Your task to perform on an android device: toggle show notifications on the lock screen Image 0: 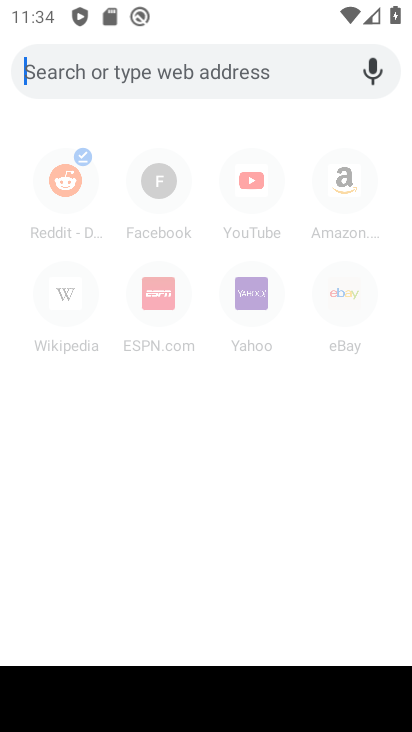
Step 0: press home button
Your task to perform on an android device: toggle show notifications on the lock screen Image 1: 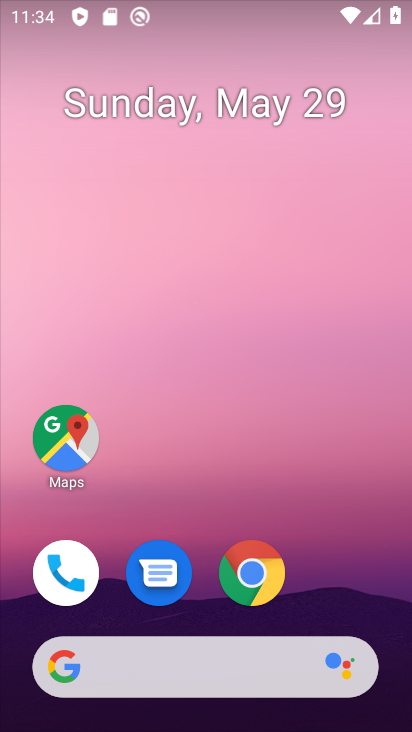
Step 1: drag from (340, 572) to (288, 244)
Your task to perform on an android device: toggle show notifications on the lock screen Image 2: 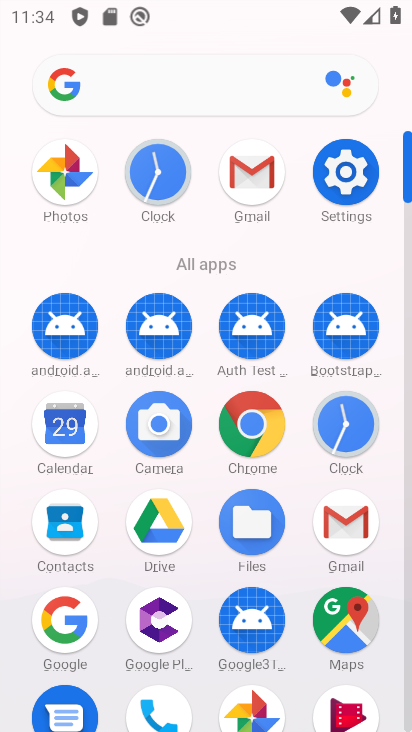
Step 2: click (344, 168)
Your task to perform on an android device: toggle show notifications on the lock screen Image 3: 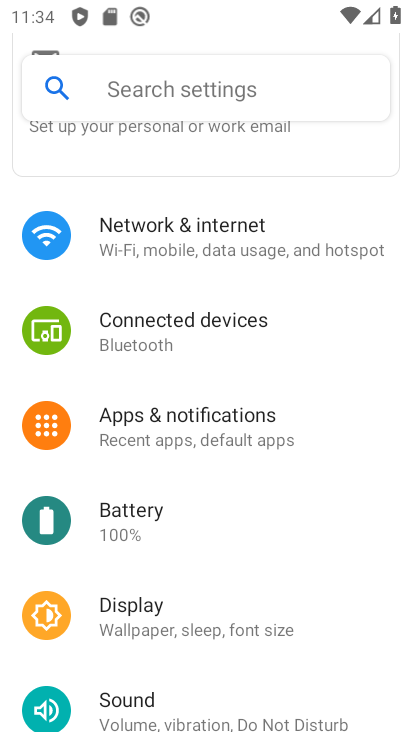
Step 3: click (267, 427)
Your task to perform on an android device: toggle show notifications on the lock screen Image 4: 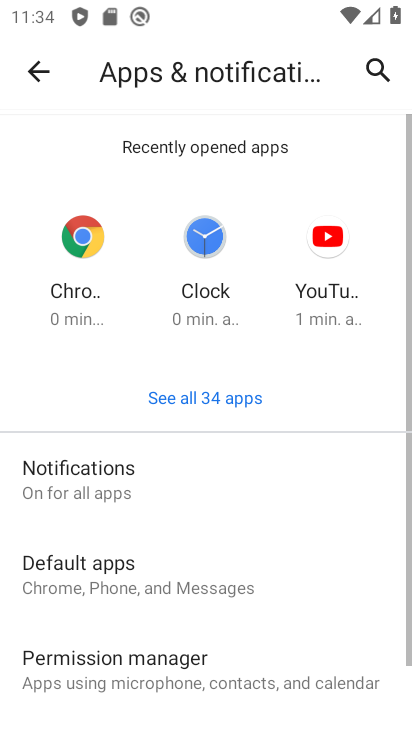
Step 4: click (152, 471)
Your task to perform on an android device: toggle show notifications on the lock screen Image 5: 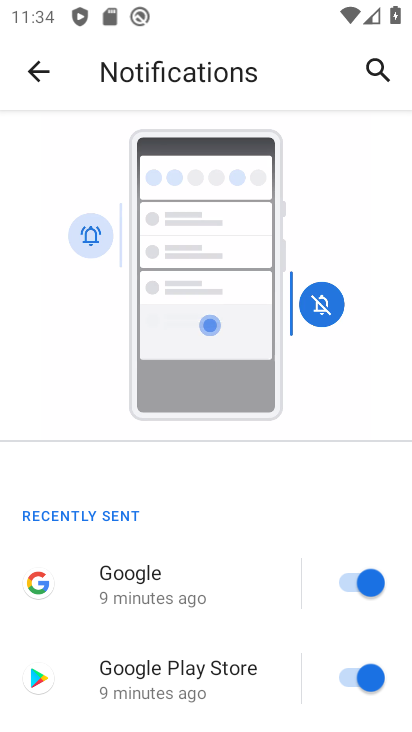
Step 5: drag from (228, 630) to (232, 211)
Your task to perform on an android device: toggle show notifications on the lock screen Image 6: 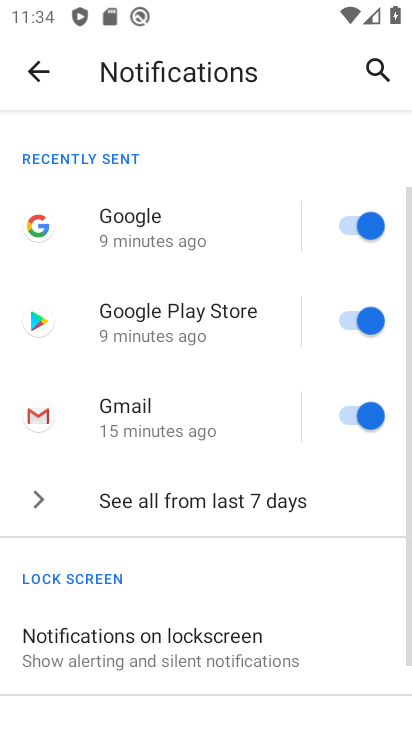
Step 6: click (129, 647)
Your task to perform on an android device: toggle show notifications on the lock screen Image 7: 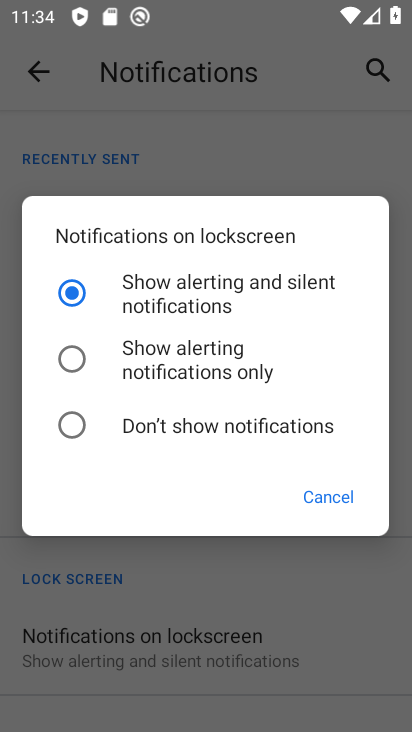
Step 7: click (74, 431)
Your task to perform on an android device: toggle show notifications on the lock screen Image 8: 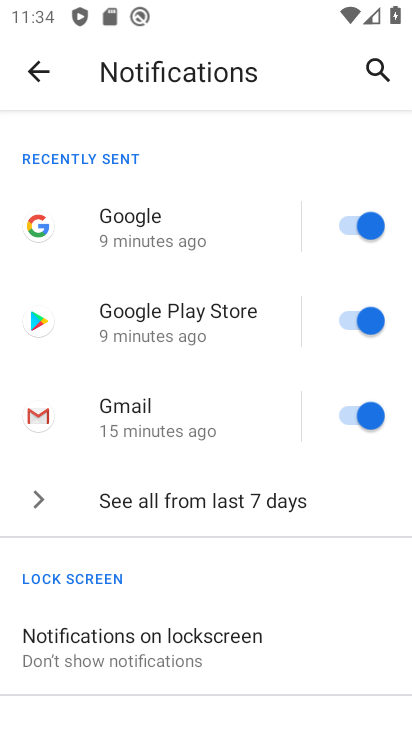
Step 8: task complete